Your task to perform on an android device: Open Google Chrome and click the shortcut for Amazon.com Image 0: 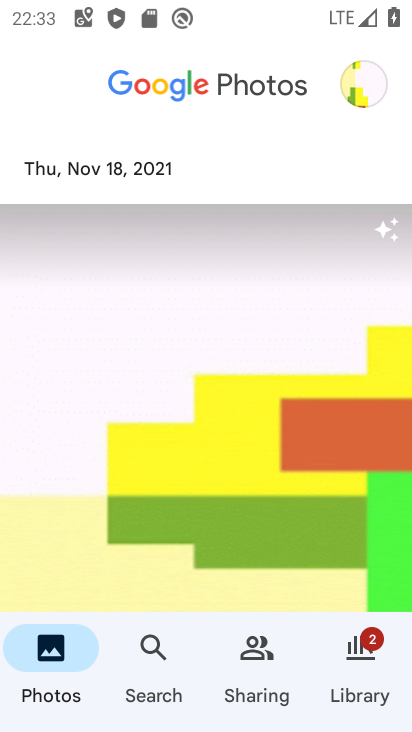
Step 0: press home button
Your task to perform on an android device: Open Google Chrome and click the shortcut for Amazon.com Image 1: 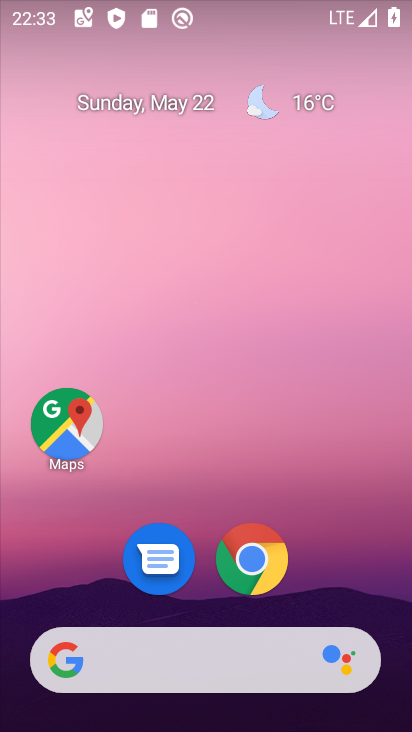
Step 1: drag from (226, 697) to (295, 204)
Your task to perform on an android device: Open Google Chrome and click the shortcut for Amazon.com Image 2: 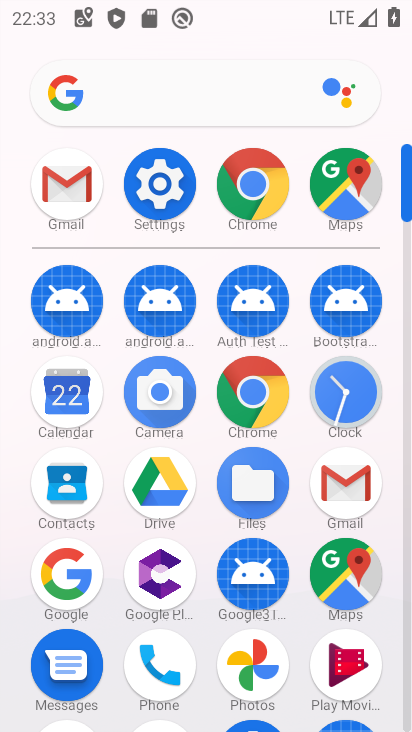
Step 2: click (269, 193)
Your task to perform on an android device: Open Google Chrome and click the shortcut for Amazon.com Image 3: 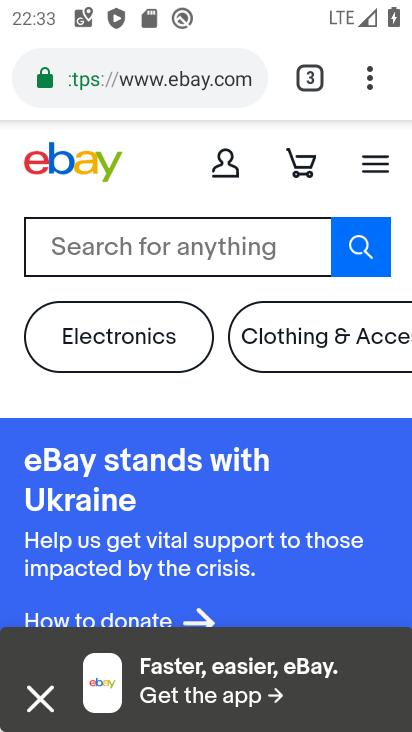
Step 3: click (298, 85)
Your task to perform on an android device: Open Google Chrome and click the shortcut for Amazon.com Image 4: 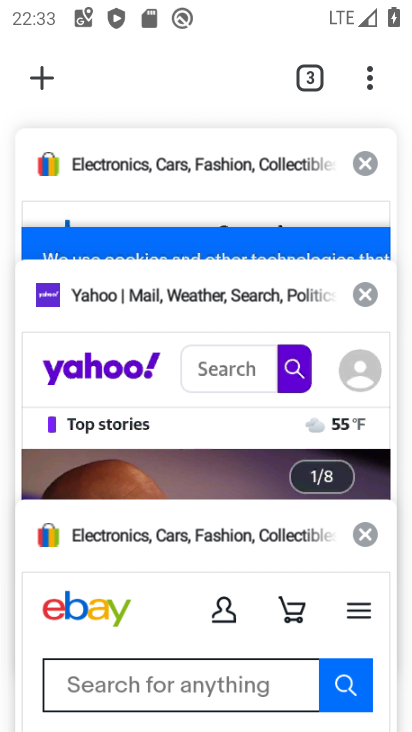
Step 4: click (29, 77)
Your task to perform on an android device: Open Google Chrome and click the shortcut for Amazon.com Image 5: 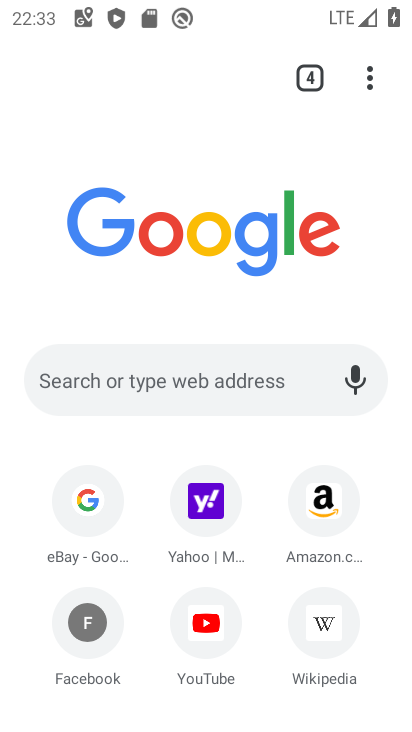
Step 5: click (342, 521)
Your task to perform on an android device: Open Google Chrome and click the shortcut for Amazon.com Image 6: 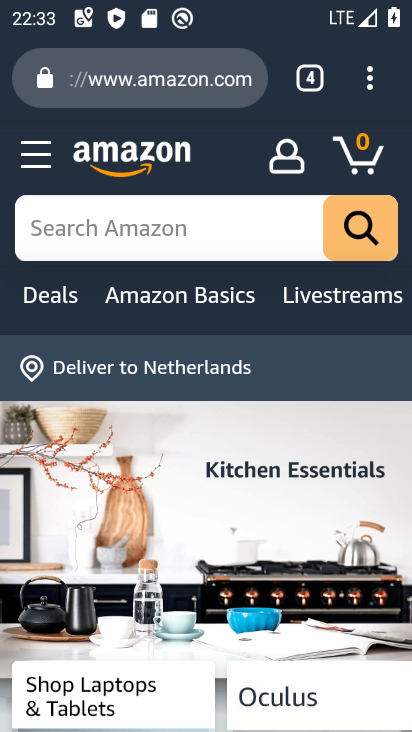
Step 6: click (353, 93)
Your task to perform on an android device: Open Google Chrome and click the shortcut for Amazon.com Image 7: 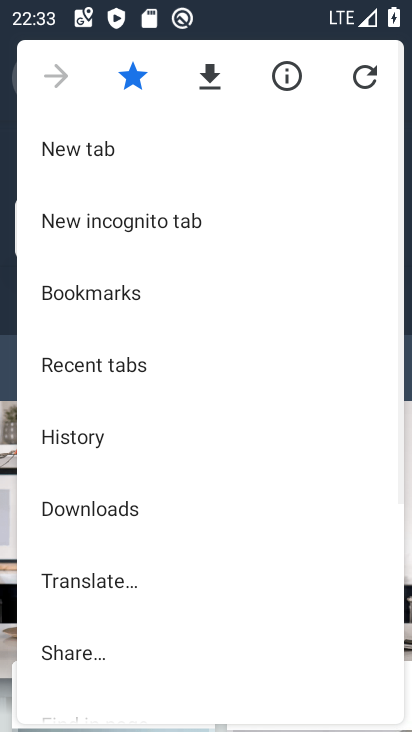
Step 7: drag from (109, 660) to (89, 337)
Your task to perform on an android device: Open Google Chrome and click the shortcut for Amazon.com Image 8: 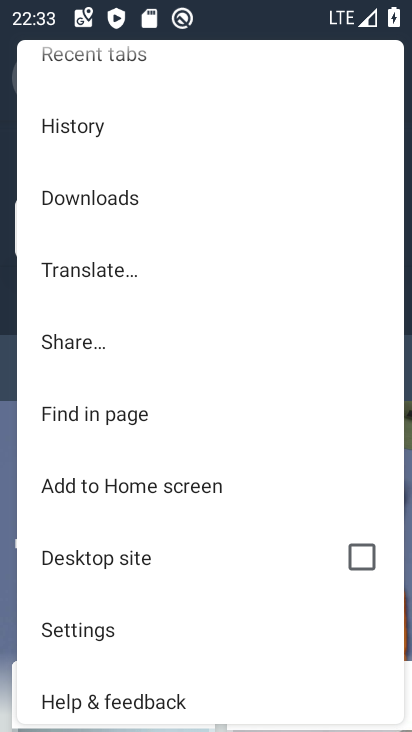
Step 8: click (109, 484)
Your task to perform on an android device: Open Google Chrome and click the shortcut for Amazon.com Image 9: 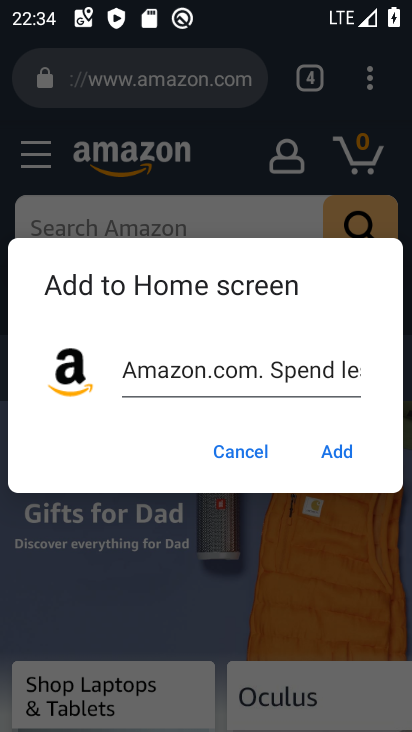
Step 9: click (332, 450)
Your task to perform on an android device: Open Google Chrome and click the shortcut for Amazon.com Image 10: 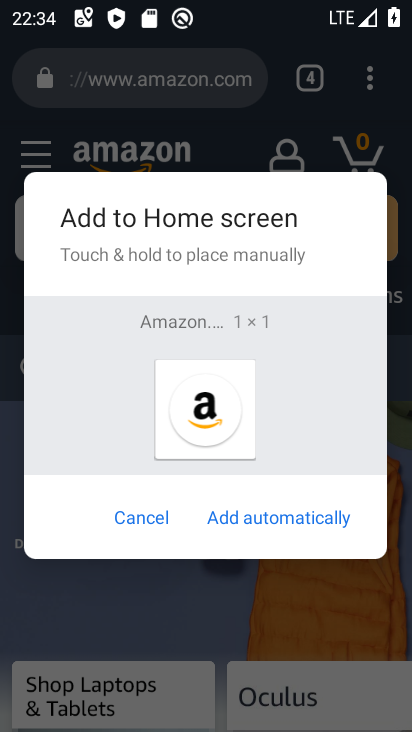
Step 10: click (279, 521)
Your task to perform on an android device: Open Google Chrome and click the shortcut for Amazon.com Image 11: 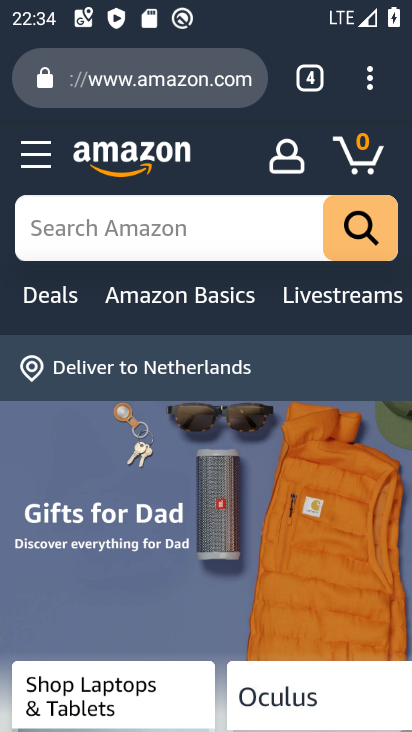
Step 11: task complete